Your task to perform on an android device: search for starred emails in the gmail app Image 0: 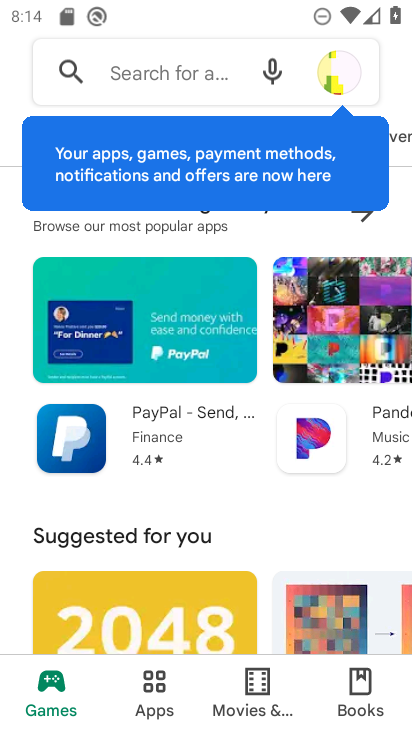
Step 0: press home button
Your task to perform on an android device: search for starred emails in the gmail app Image 1: 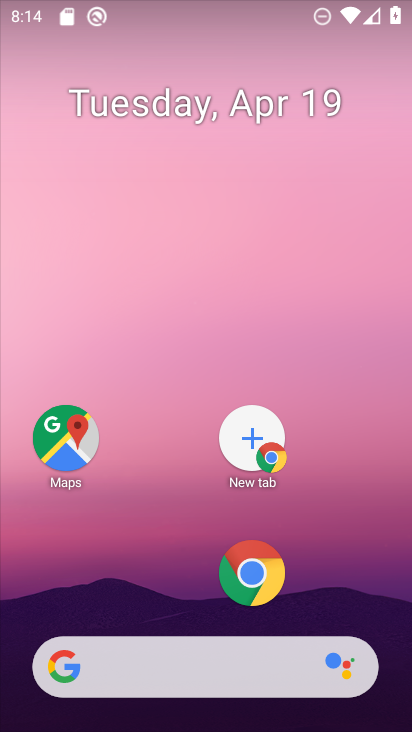
Step 1: drag from (152, 599) to (213, 197)
Your task to perform on an android device: search for starred emails in the gmail app Image 2: 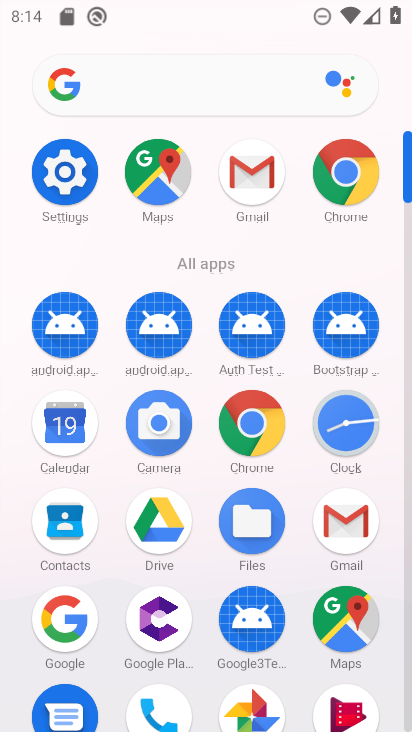
Step 2: click (244, 173)
Your task to perform on an android device: search for starred emails in the gmail app Image 3: 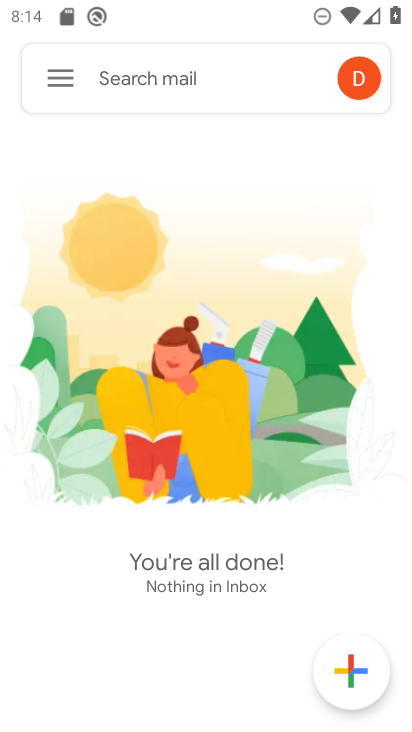
Step 3: click (64, 86)
Your task to perform on an android device: search for starred emails in the gmail app Image 4: 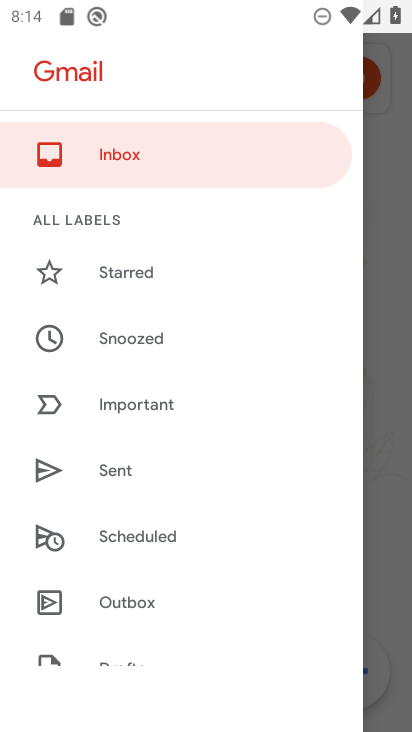
Step 4: click (101, 280)
Your task to perform on an android device: search for starred emails in the gmail app Image 5: 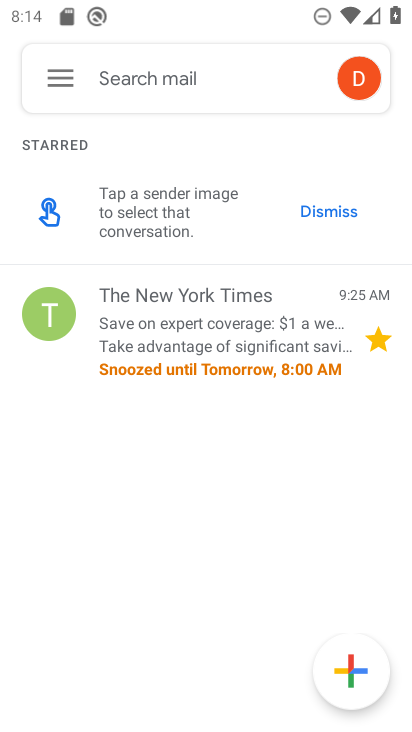
Step 5: task complete